Your task to perform on an android device: visit the assistant section in the google photos Image 0: 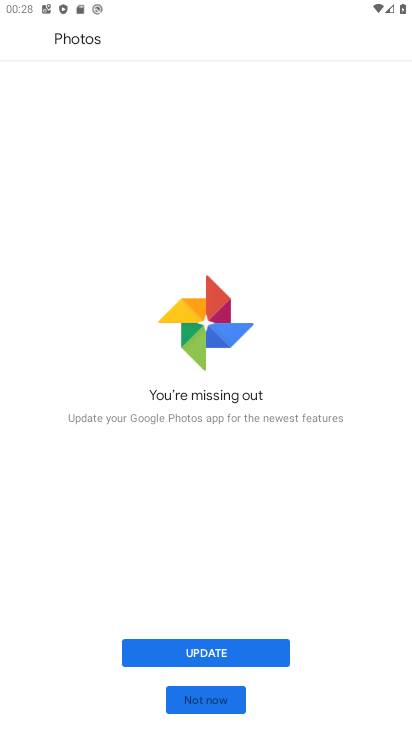
Step 0: drag from (255, 600) to (264, 10)
Your task to perform on an android device: visit the assistant section in the google photos Image 1: 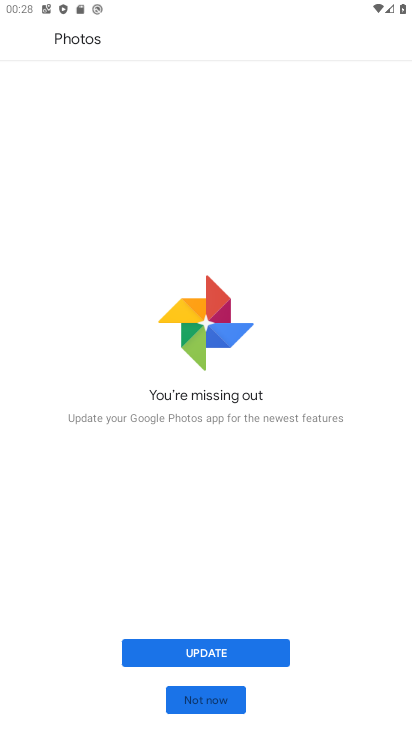
Step 1: click (200, 702)
Your task to perform on an android device: visit the assistant section in the google photos Image 2: 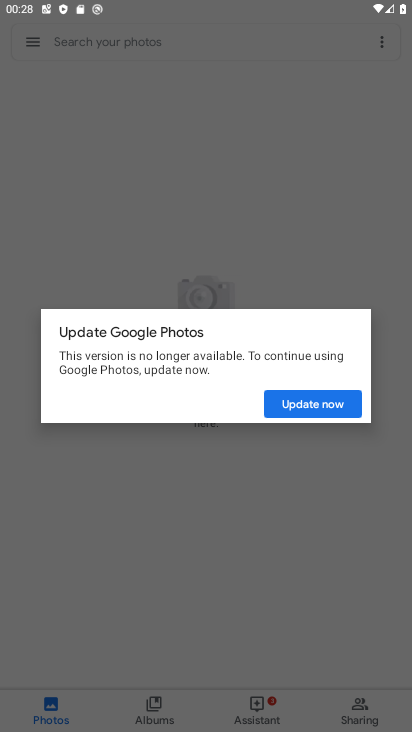
Step 2: click (315, 404)
Your task to perform on an android device: visit the assistant section in the google photos Image 3: 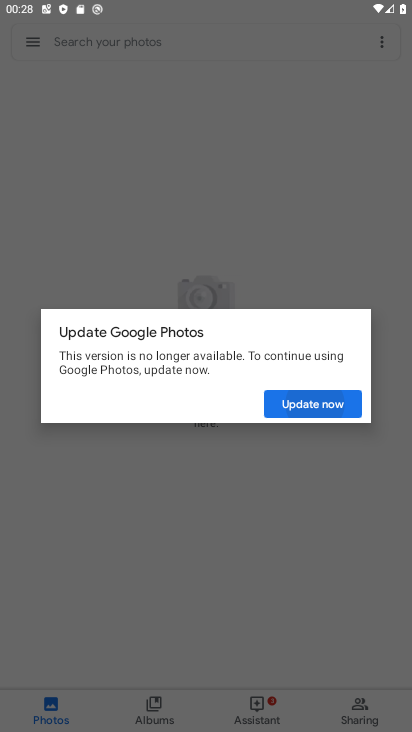
Step 3: click (324, 403)
Your task to perform on an android device: visit the assistant section in the google photos Image 4: 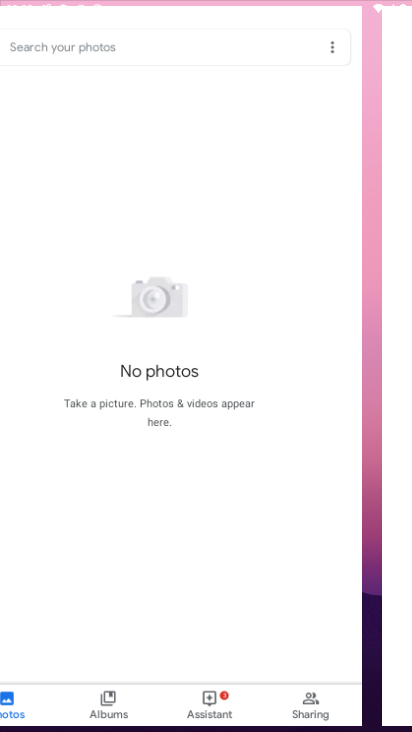
Step 4: click (333, 395)
Your task to perform on an android device: visit the assistant section in the google photos Image 5: 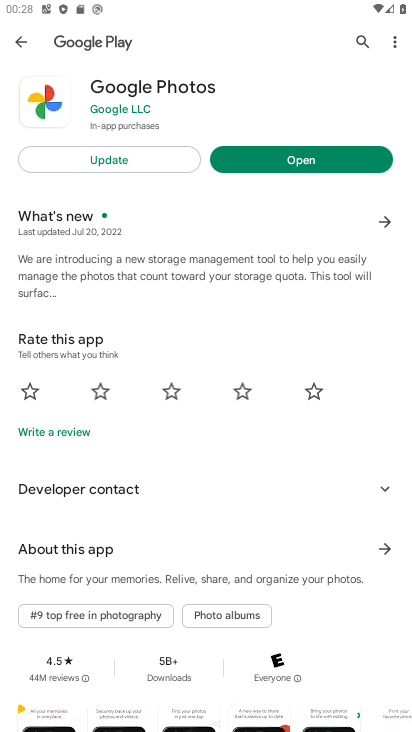
Step 5: click (160, 163)
Your task to perform on an android device: visit the assistant section in the google photos Image 6: 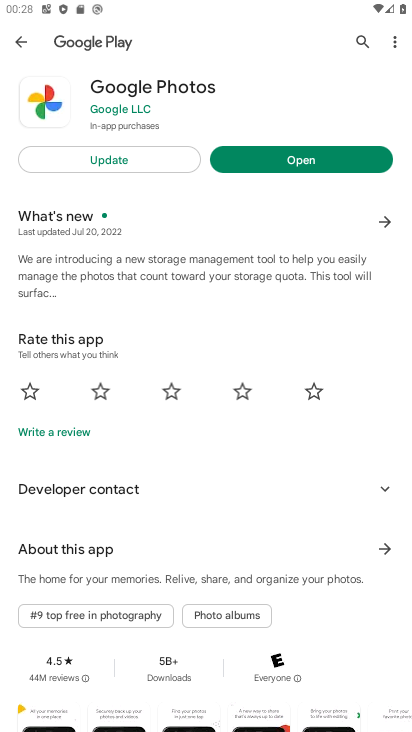
Step 6: click (160, 163)
Your task to perform on an android device: visit the assistant section in the google photos Image 7: 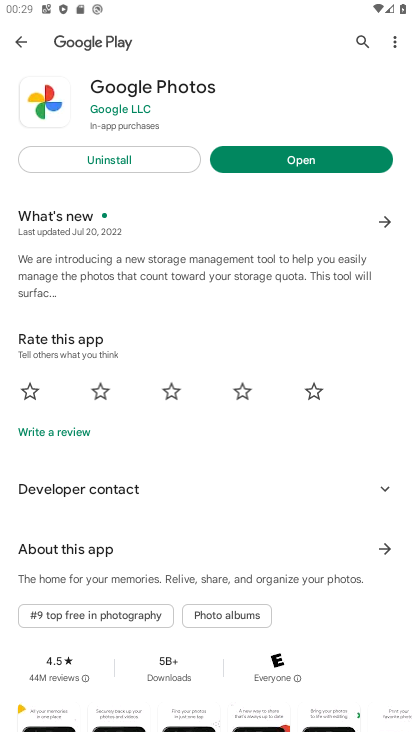
Step 7: click (302, 171)
Your task to perform on an android device: visit the assistant section in the google photos Image 8: 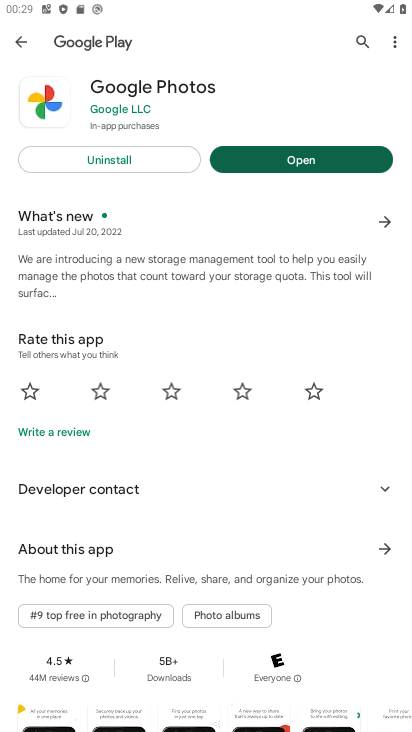
Step 8: click (302, 171)
Your task to perform on an android device: visit the assistant section in the google photos Image 9: 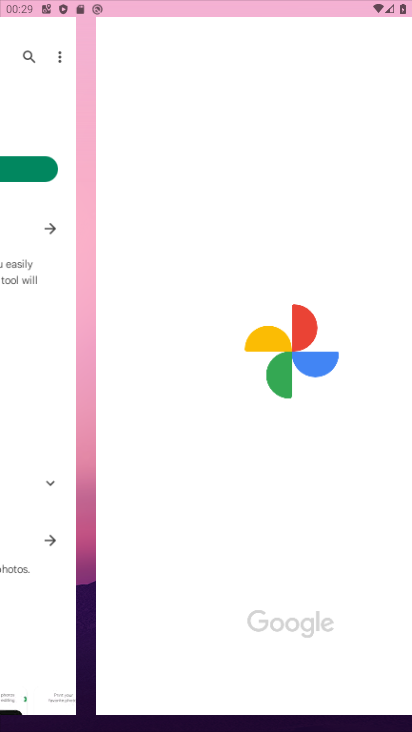
Step 9: click (302, 171)
Your task to perform on an android device: visit the assistant section in the google photos Image 10: 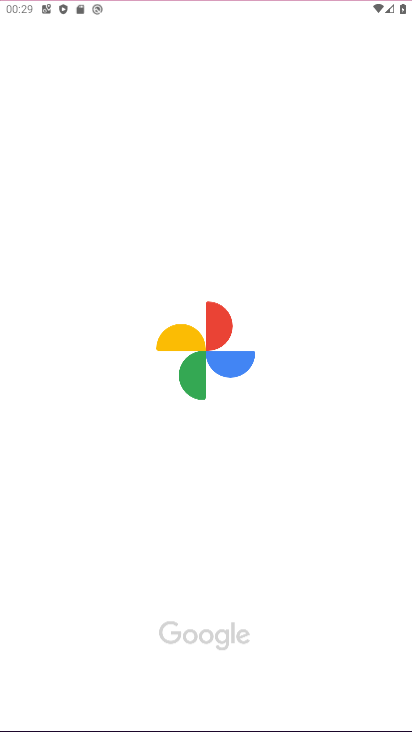
Step 10: click (302, 171)
Your task to perform on an android device: visit the assistant section in the google photos Image 11: 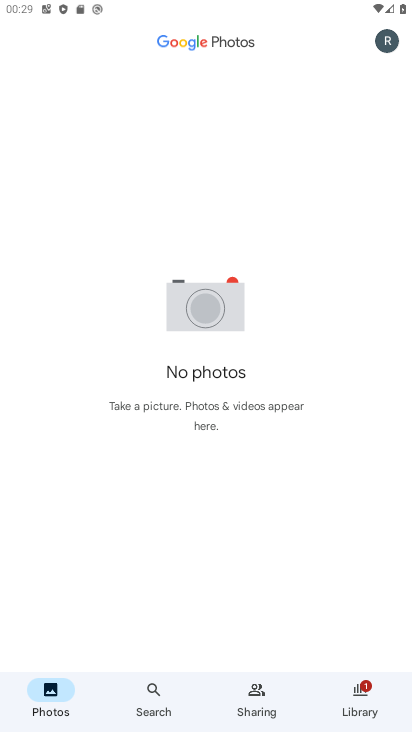
Step 11: task complete